Your task to perform on an android device: Toggle the flashlight Image 0: 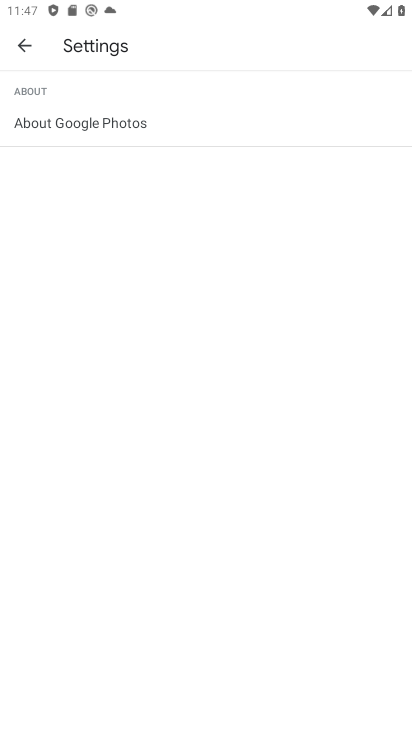
Step 0: press home button
Your task to perform on an android device: Toggle the flashlight Image 1: 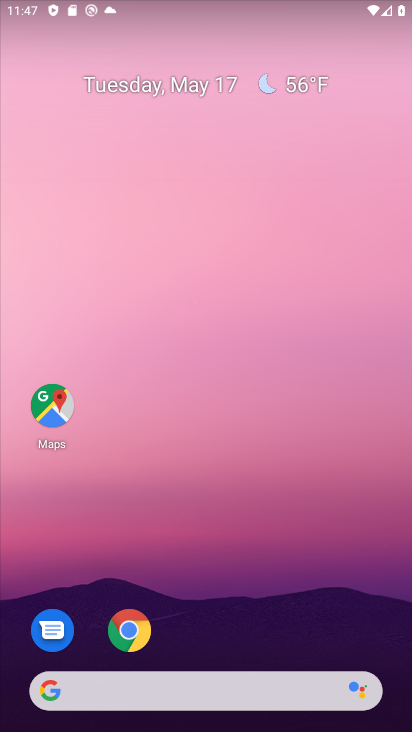
Step 1: drag from (214, 719) to (195, 156)
Your task to perform on an android device: Toggle the flashlight Image 2: 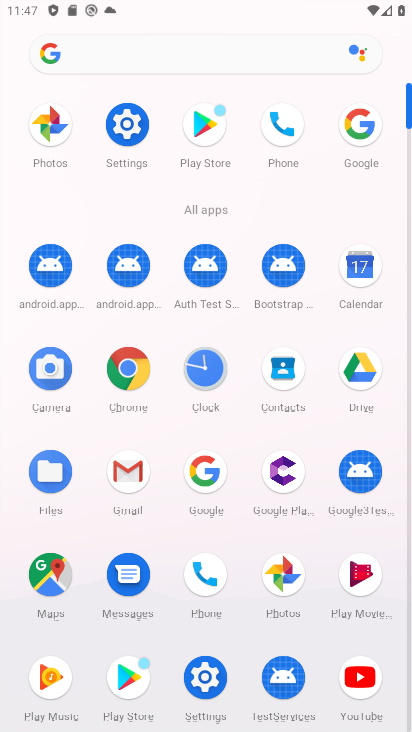
Step 2: click (130, 114)
Your task to perform on an android device: Toggle the flashlight Image 3: 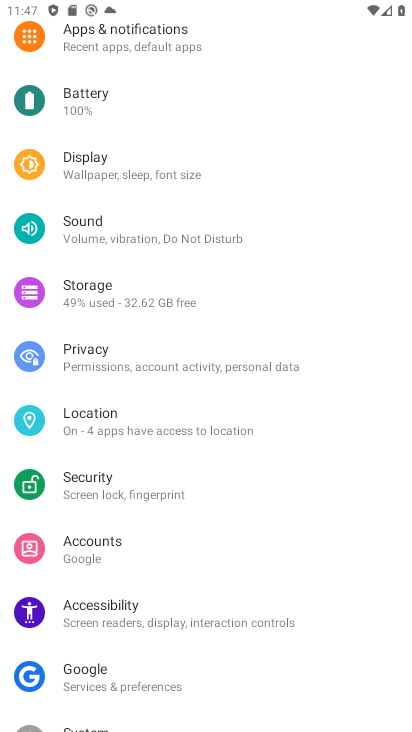
Step 3: task complete